Your task to perform on an android device: Open Wikipedia Image 0: 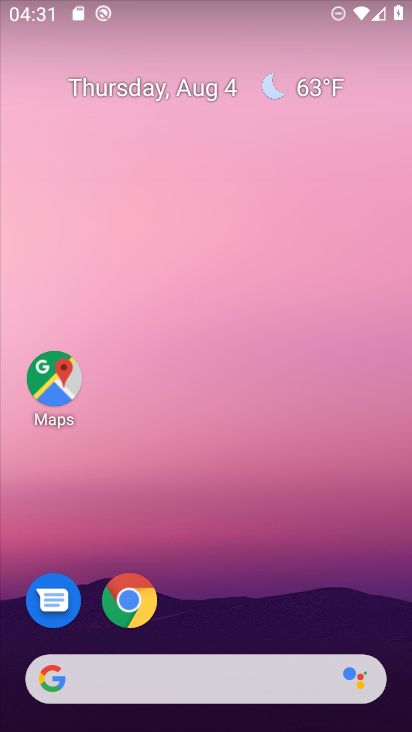
Step 0: drag from (320, 610) to (327, 92)
Your task to perform on an android device: Open Wikipedia Image 1: 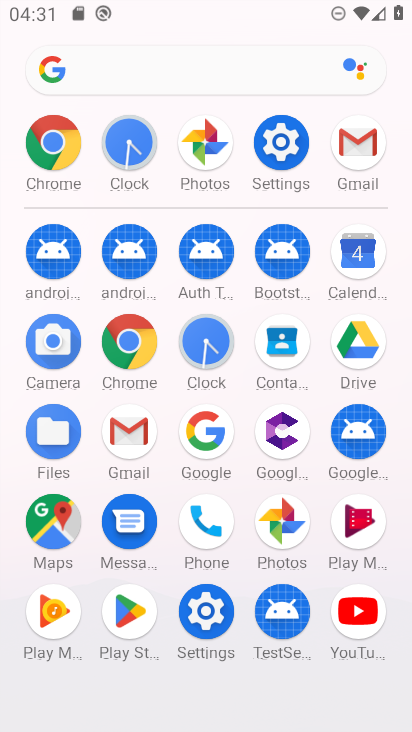
Step 1: click (127, 347)
Your task to perform on an android device: Open Wikipedia Image 2: 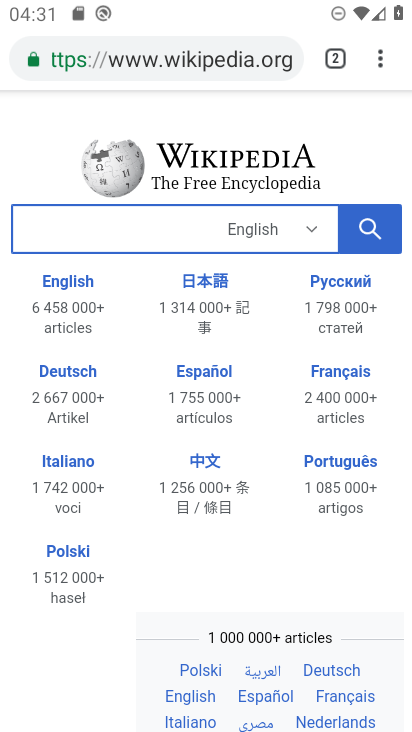
Step 2: task complete